Your task to perform on an android device: turn off translation in the chrome app Image 0: 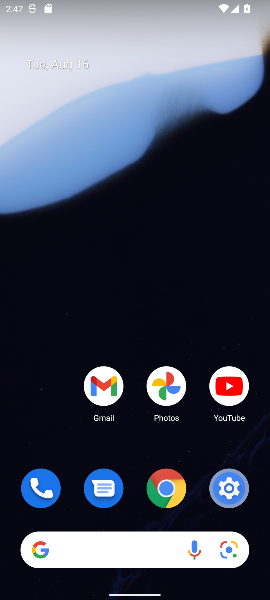
Step 0: click (167, 483)
Your task to perform on an android device: turn off translation in the chrome app Image 1: 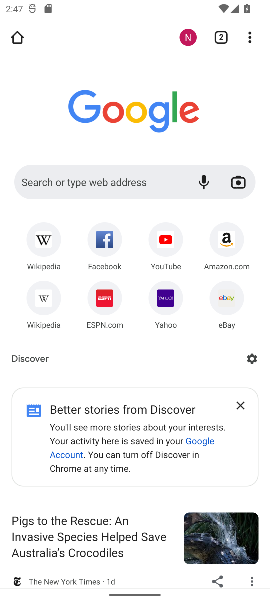
Step 1: task complete